Your task to perform on an android device: set an alarm Image 0: 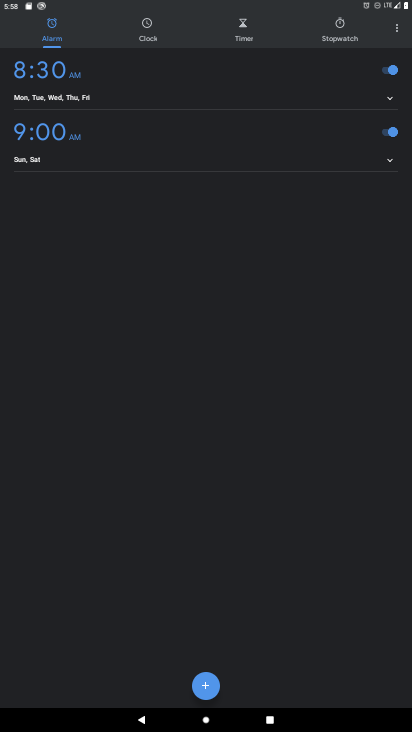
Step 0: press home button
Your task to perform on an android device: set an alarm Image 1: 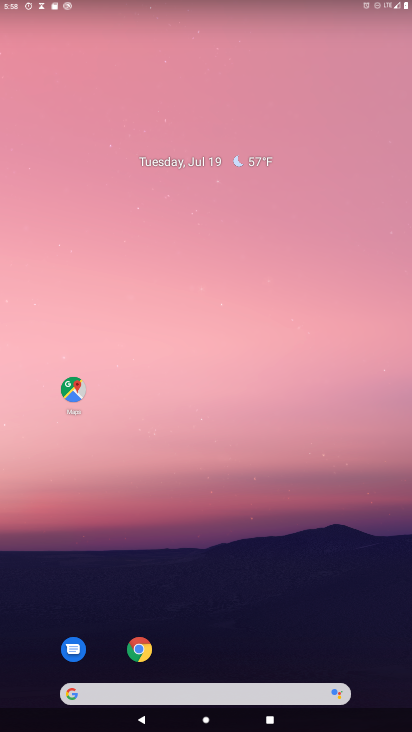
Step 1: drag from (188, 640) to (188, 133)
Your task to perform on an android device: set an alarm Image 2: 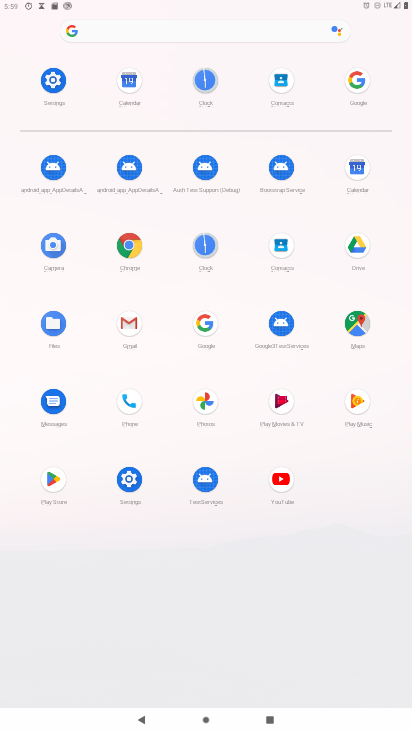
Step 2: click (209, 266)
Your task to perform on an android device: set an alarm Image 3: 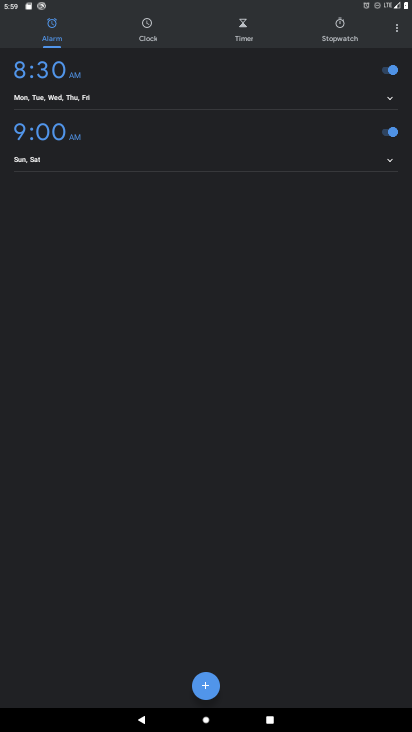
Step 3: click (388, 160)
Your task to perform on an android device: set an alarm Image 4: 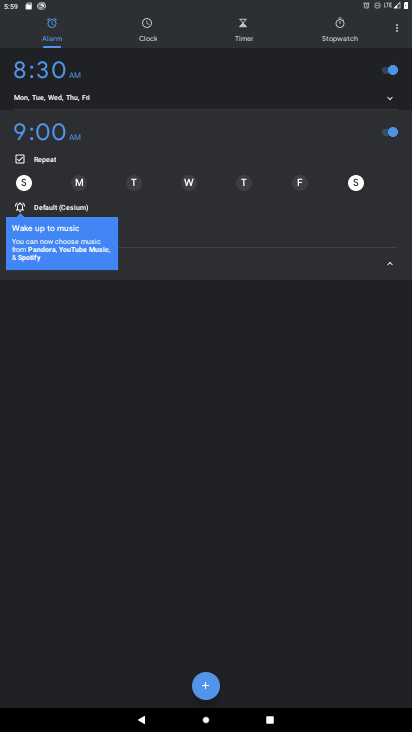
Step 4: click (199, 687)
Your task to perform on an android device: set an alarm Image 5: 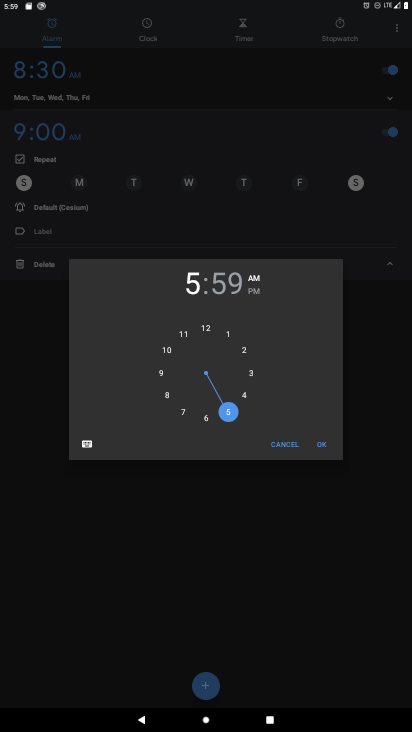
Step 5: click (323, 441)
Your task to perform on an android device: set an alarm Image 6: 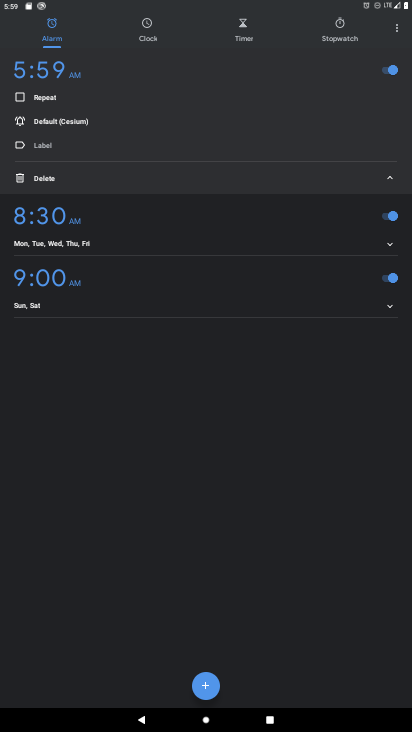
Step 6: task complete